Your task to perform on an android device: turn on improve location accuracy Image 0: 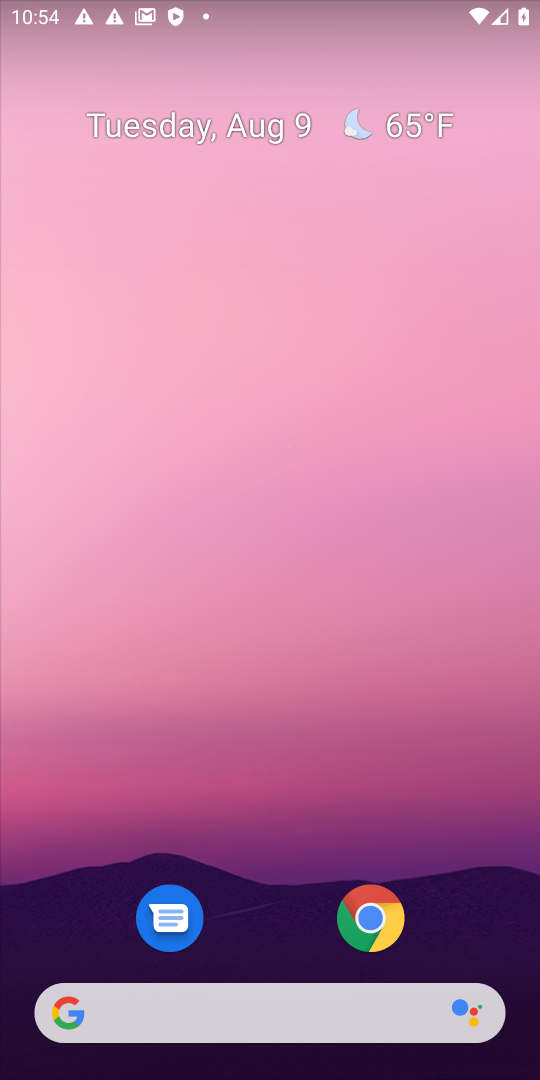
Step 0: drag from (262, 397) to (241, 218)
Your task to perform on an android device: turn on improve location accuracy Image 1: 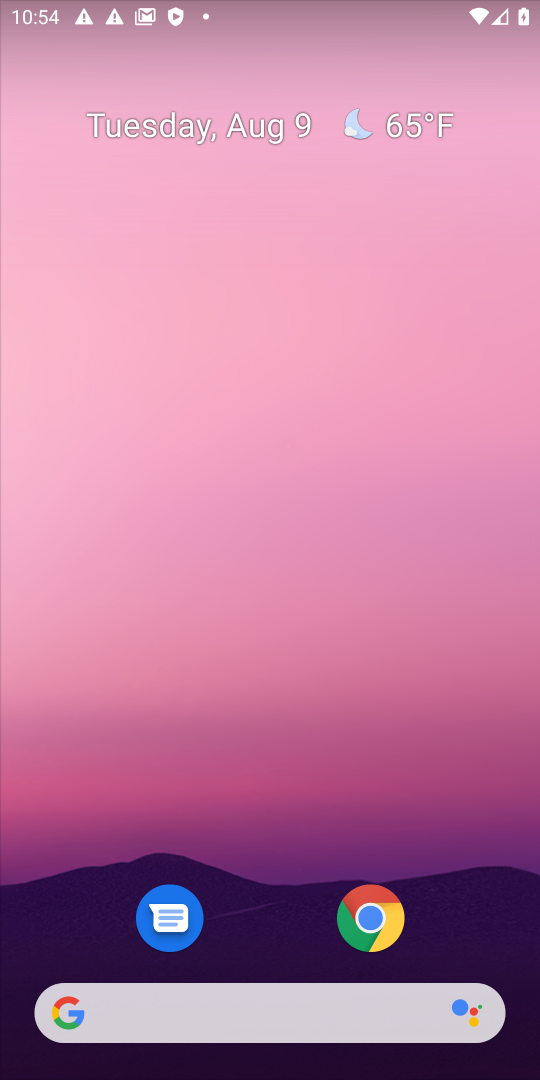
Step 1: drag from (229, 479) to (232, 267)
Your task to perform on an android device: turn on improve location accuracy Image 2: 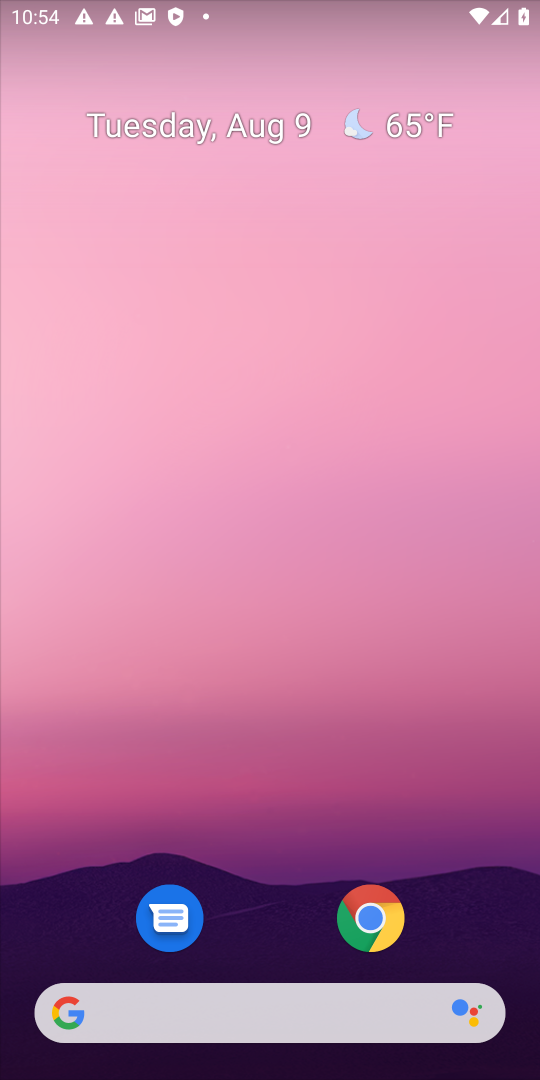
Step 2: drag from (248, 949) to (276, 303)
Your task to perform on an android device: turn on improve location accuracy Image 3: 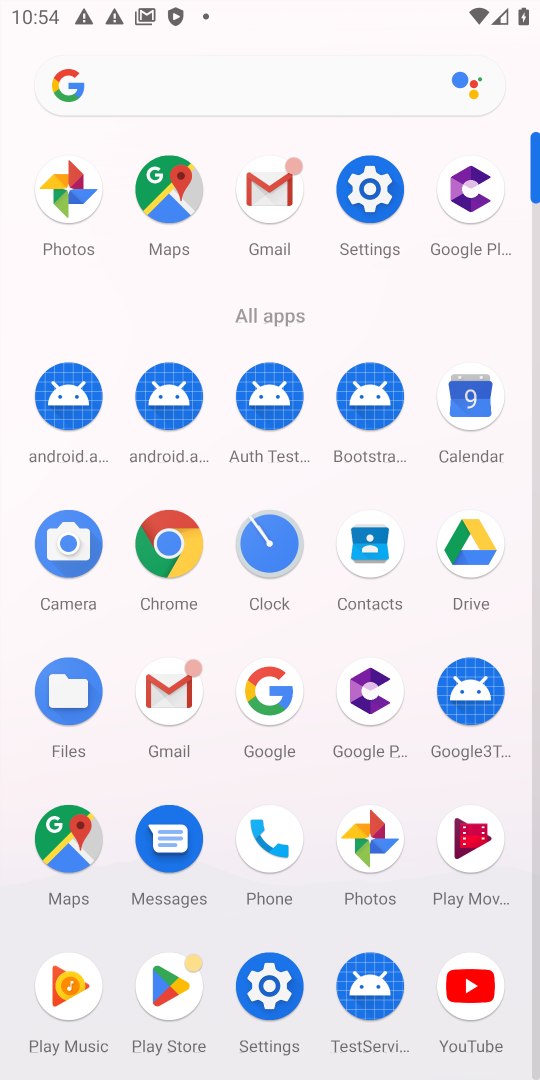
Step 3: click (272, 995)
Your task to perform on an android device: turn on improve location accuracy Image 4: 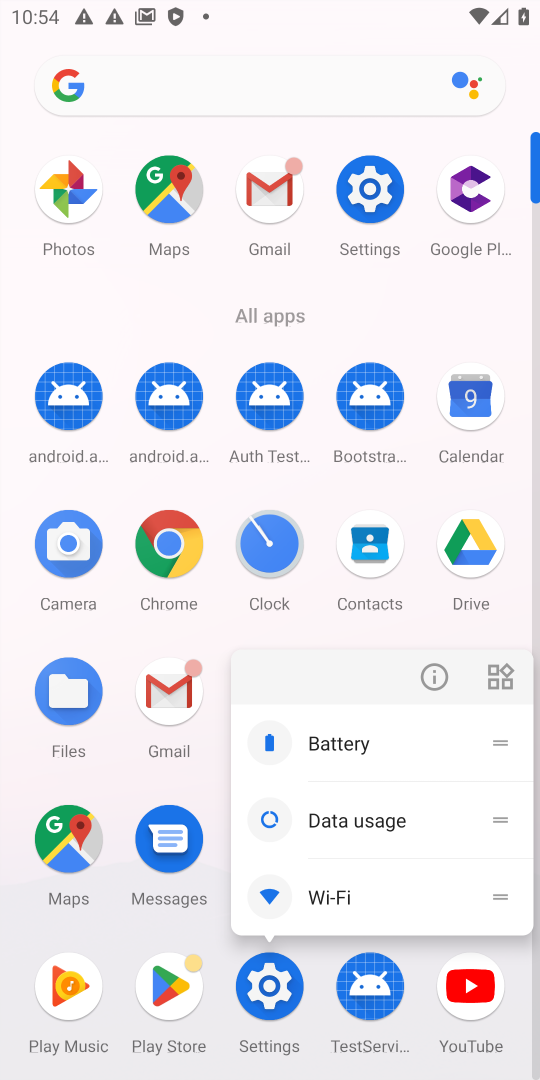
Step 4: click (272, 984)
Your task to perform on an android device: turn on improve location accuracy Image 5: 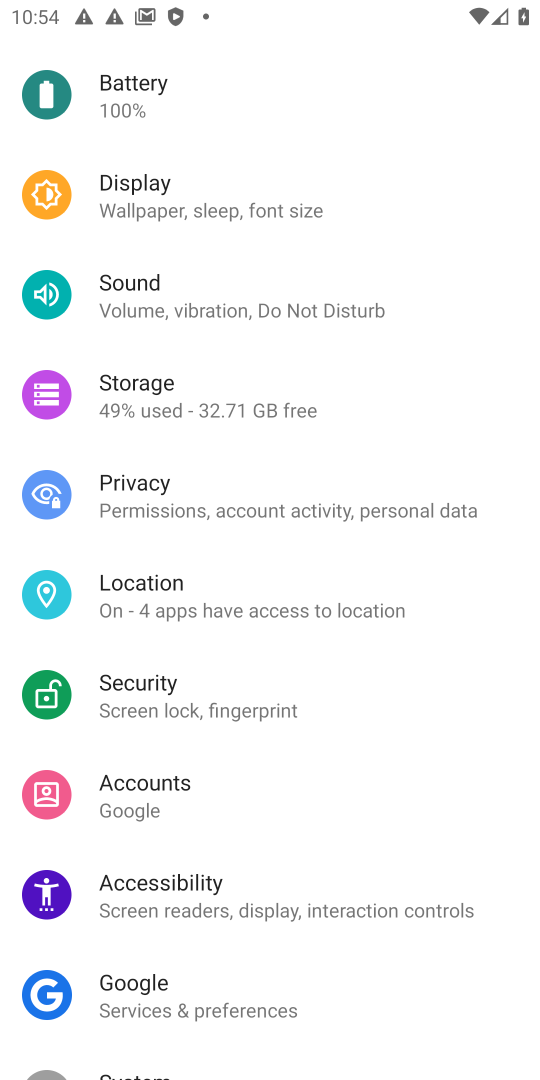
Step 5: click (141, 575)
Your task to perform on an android device: turn on improve location accuracy Image 6: 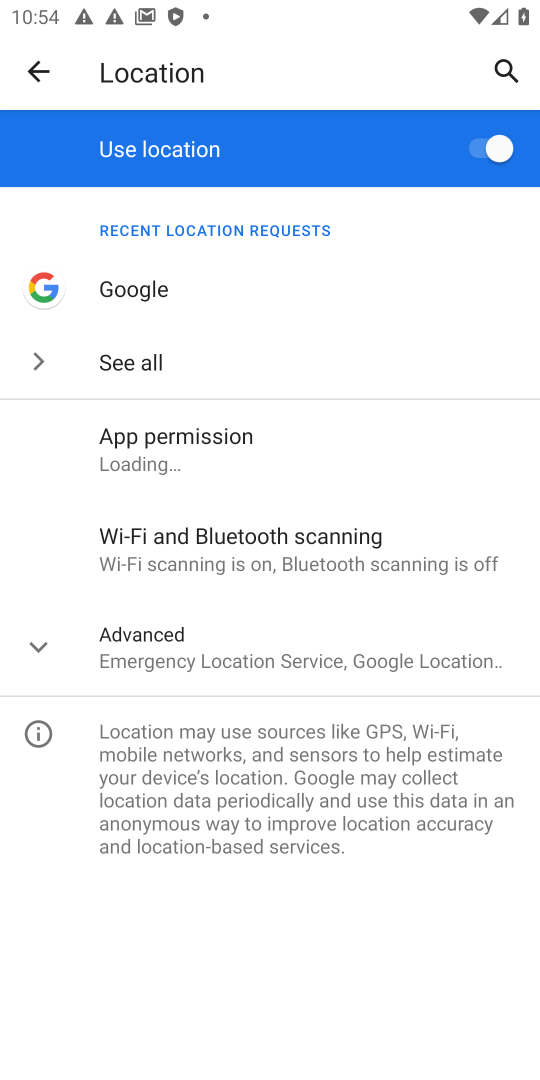
Step 6: click (190, 642)
Your task to perform on an android device: turn on improve location accuracy Image 7: 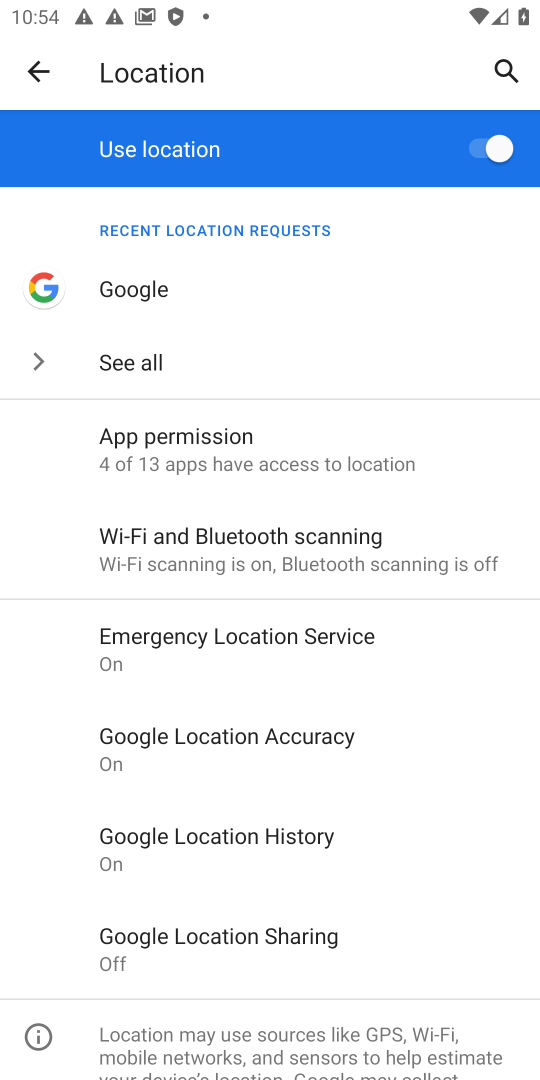
Step 7: click (236, 740)
Your task to perform on an android device: turn on improve location accuracy Image 8: 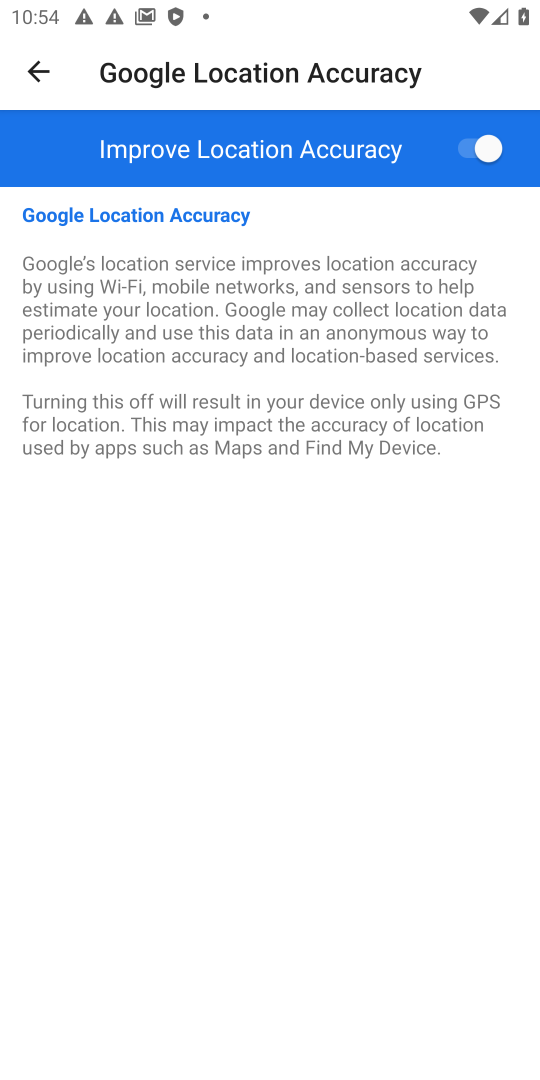
Step 8: task complete